Your task to perform on an android device: Clear all items from cart on amazon. Add "razer deathadder" to the cart on amazon Image 0: 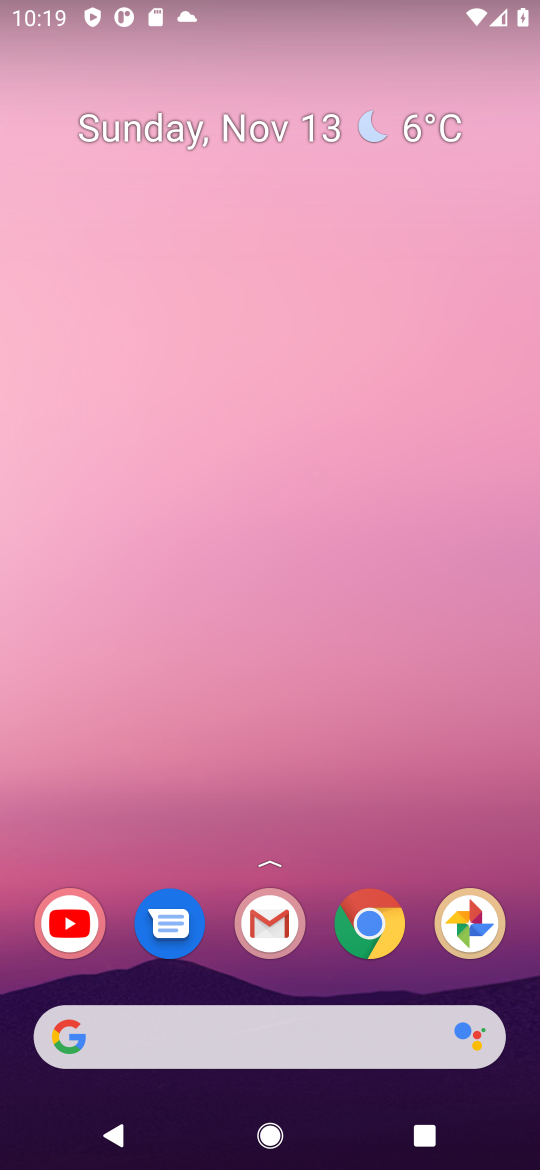
Step 0: click (370, 917)
Your task to perform on an android device: Clear all items from cart on amazon. Add "razer deathadder" to the cart on amazon Image 1: 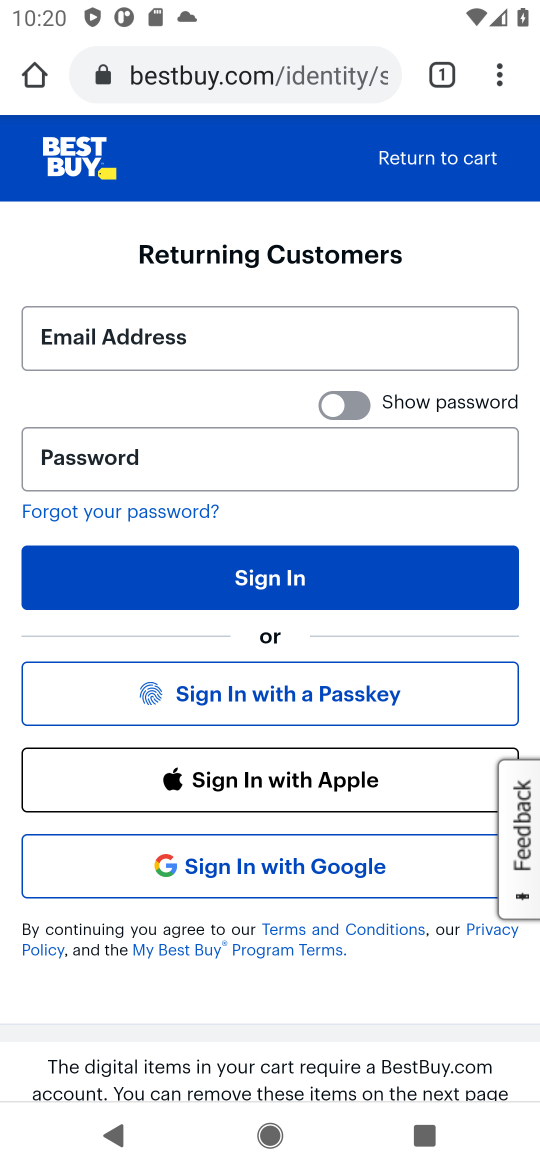
Step 1: click (299, 67)
Your task to perform on an android device: Clear all items from cart on amazon. Add "razer deathadder" to the cart on amazon Image 2: 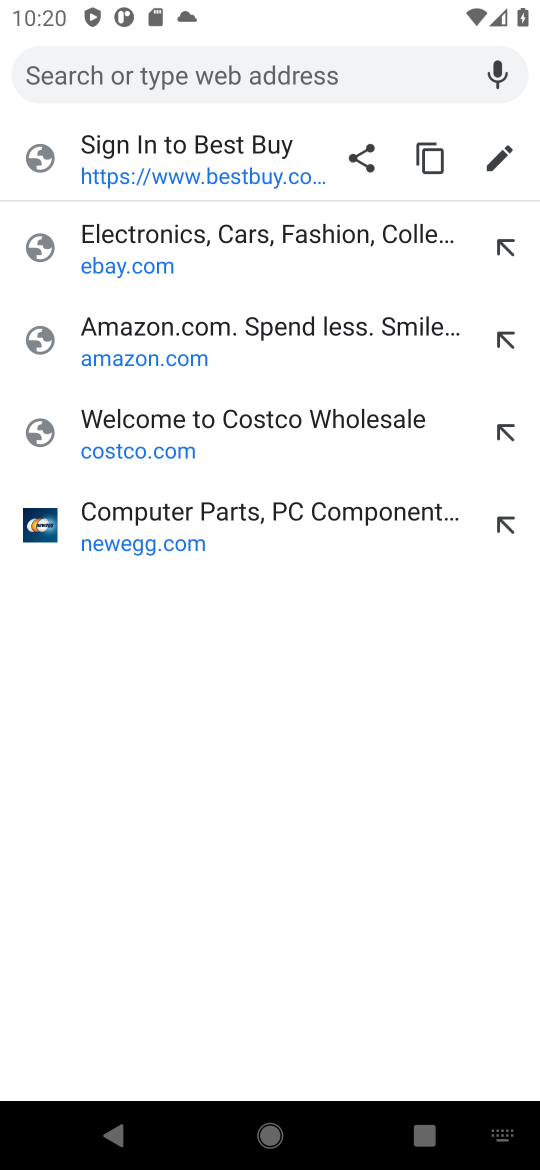
Step 2: click (202, 326)
Your task to perform on an android device: Clear all items from cart on amazon. Add "razer deathadder" to the cart on amazon Image 3: 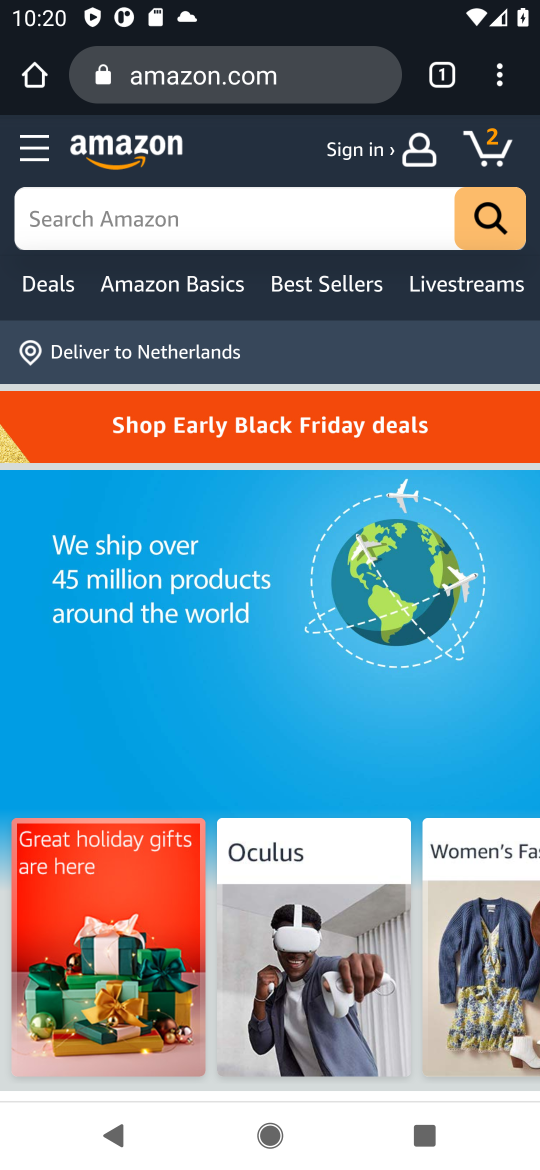
Step 3: click (479, 159)
Your task to perform on an android device: Clear all items from cart on amazon. Add "razer deathadder" to the cart on amazon Image 4: 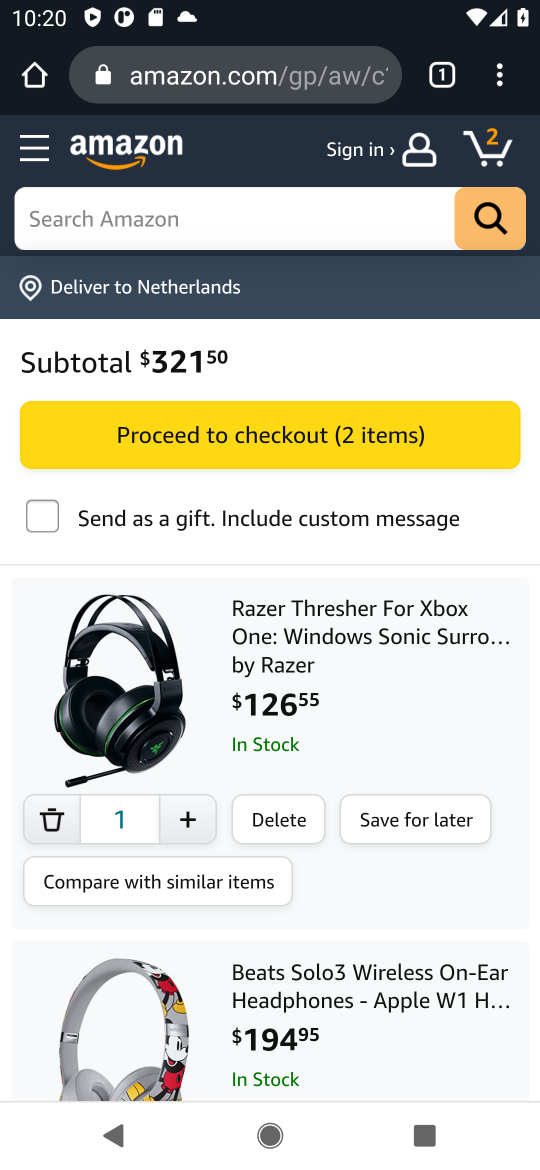
Step 4: click (261, 817)
Your task to perform on an android device: Clear all items from cart on amazon. Add "razer deathadder" to the cart on amazon Image 5: 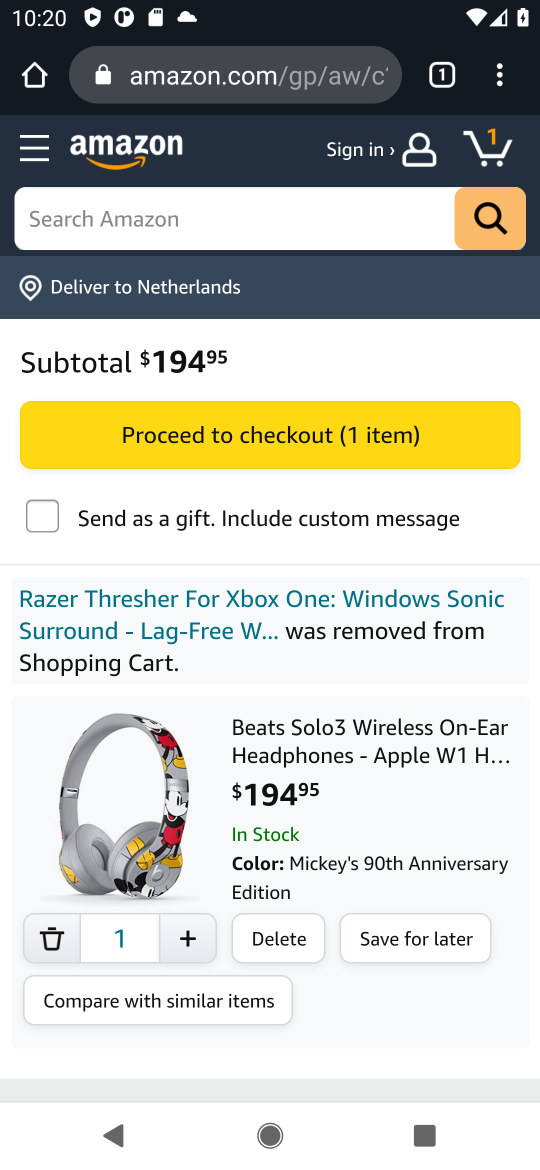
Step 5: click (269, 941)
Your task to perform on an android device: Clear all items from cart on amazon. Add "razer deathadder" to the cart on amazon Image 6: 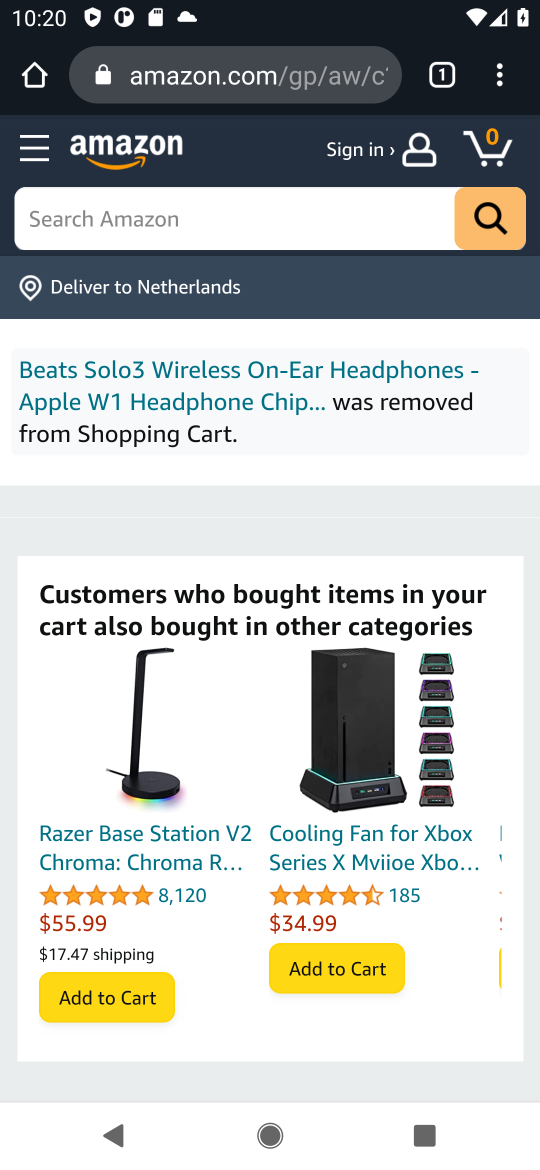
Step 6: click (301, 230)
Your task to perform on an android device: Clear all items from cart on amazon. Add "razer deathadder" to the cart on amazon Image 7: 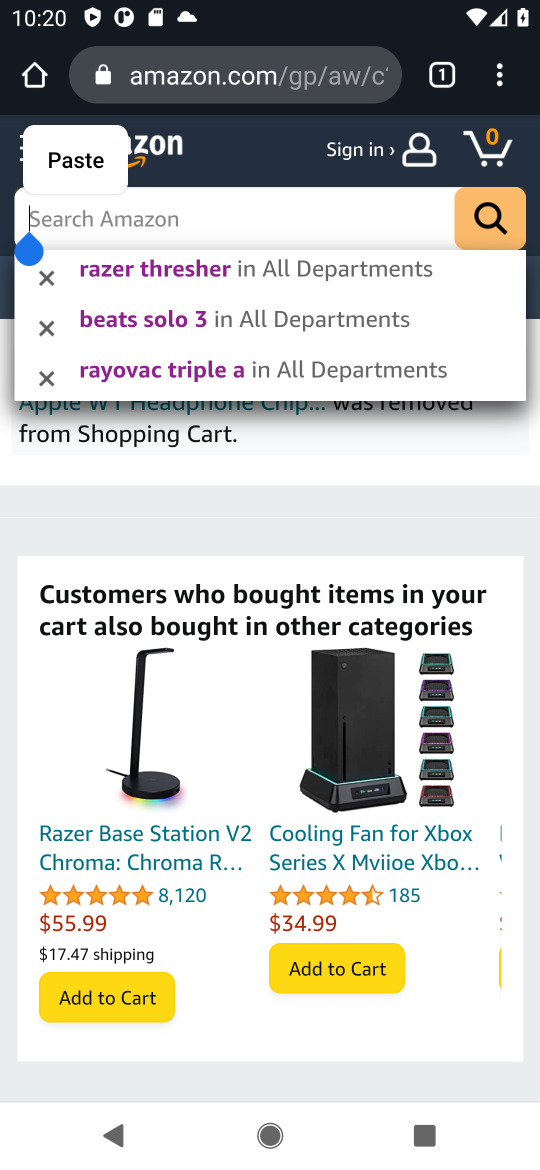
Step 7: type "razer deathadder"
Your task to perform on an android device: Clear all items from cart on amazon. Add "razer deathadder" to the cart on amazon Image 8: 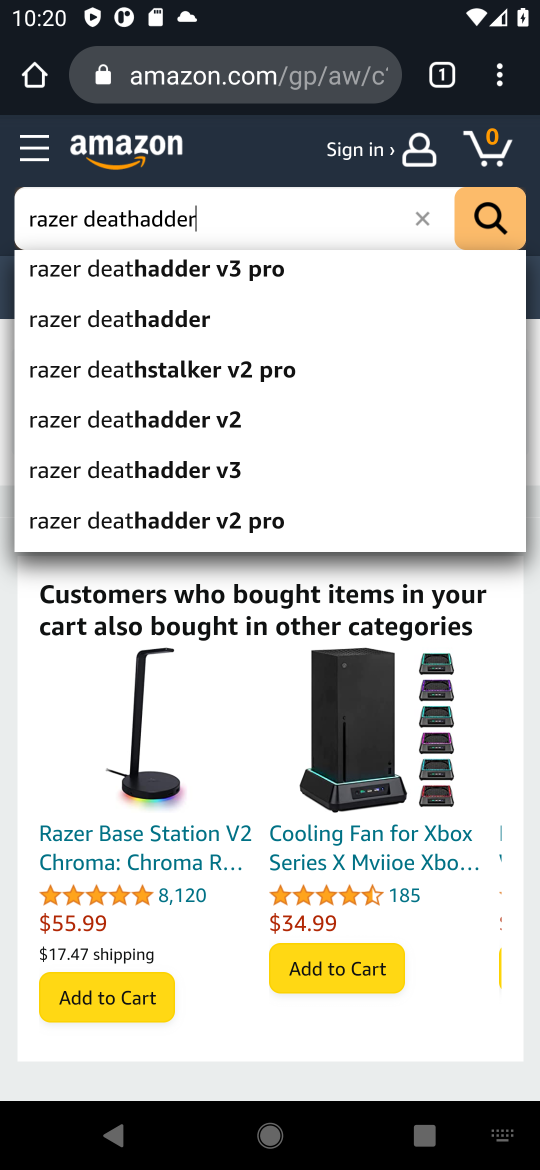
Step 8: press enter
Your task to perform on an android device: Clear all items from cart on amazon. Add "razer deathadder" to the cart on amazon Image 9: 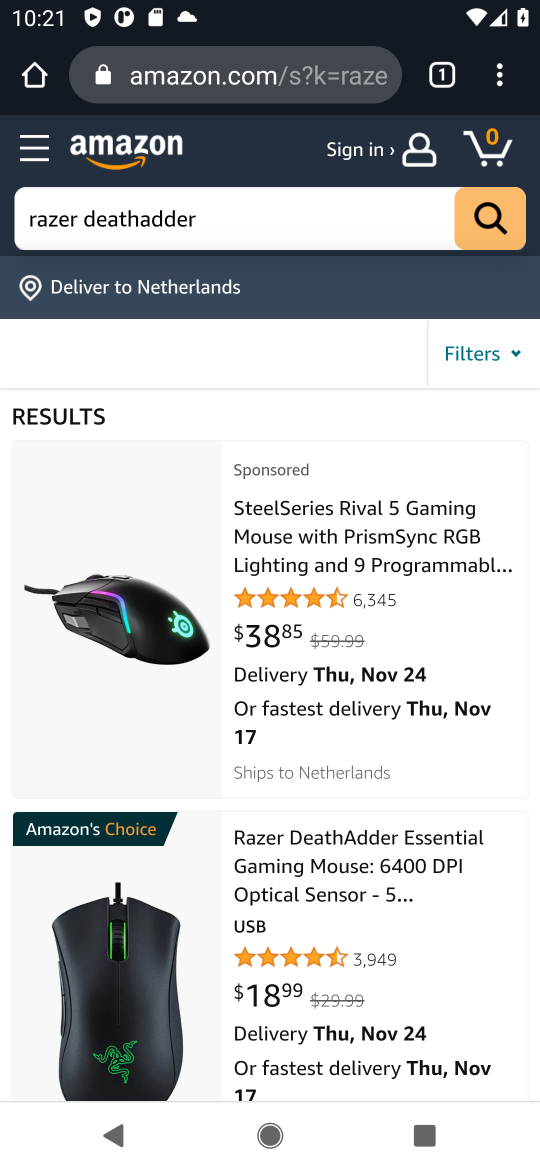
Step 9: click (136, 950)
Your task to perform on an android device: Clear all items from cart on amazon. Add "razer deathadder" to the cart on amazon Image 10: 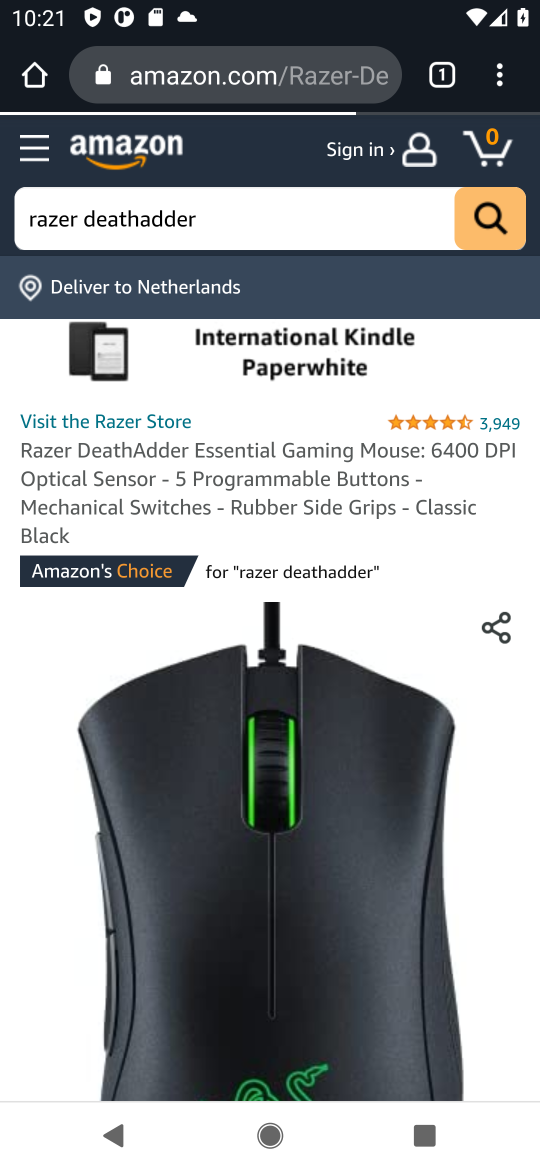
Step 10: drag from (404, 741) to (449, 384)
Your task to perform on an android device: Clear all items from cart on amazon. Add "razer deathadder" to the cart on amazon Image 11: 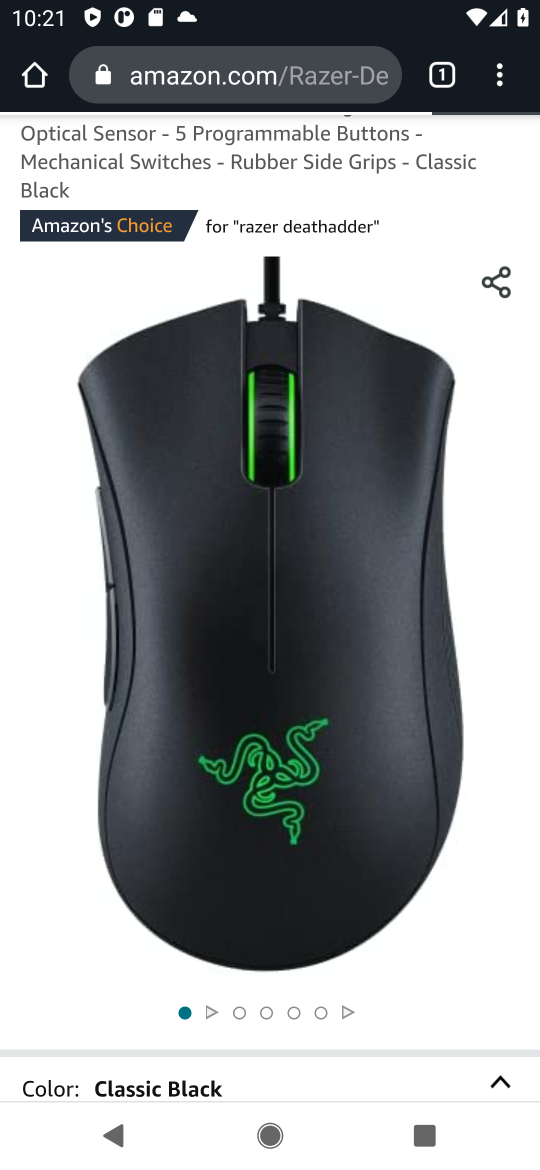
Step 11: drag from (467, 938) to (417, 484)
Your task to perform on an android device: Clear all items from cart on amazon. Add "razer deathadder" to the cart on amazon Image 12: 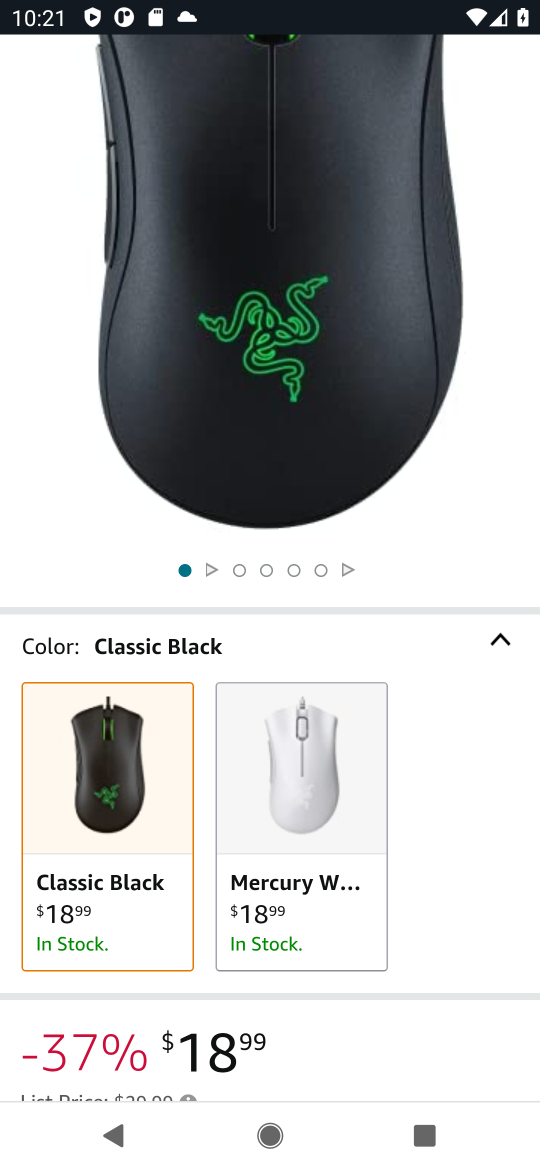
Step 12: drag from (444, 857) to (474, 477)
Your task to perform on an android device: Clear all items from cart on amazon. Add "razer deathadder" to the cart on amazon Image 13: 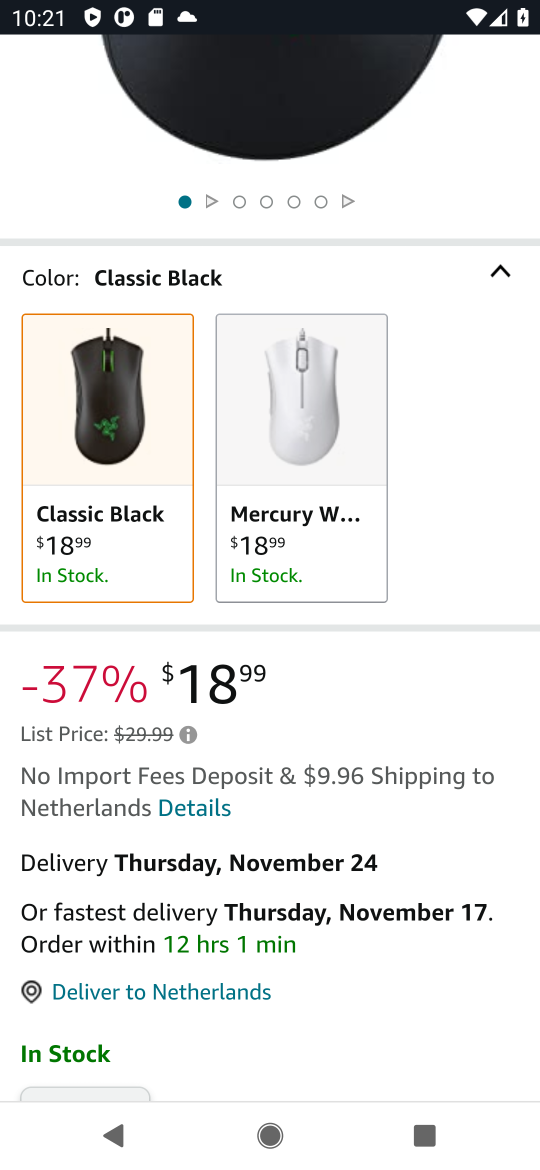
Step 13: drag from (376, 988) to (425, 445)
Your task to perform on an android device: Clear all items from cart on amazon. Add "razer deathadder" to the cart on amazon Image 14: 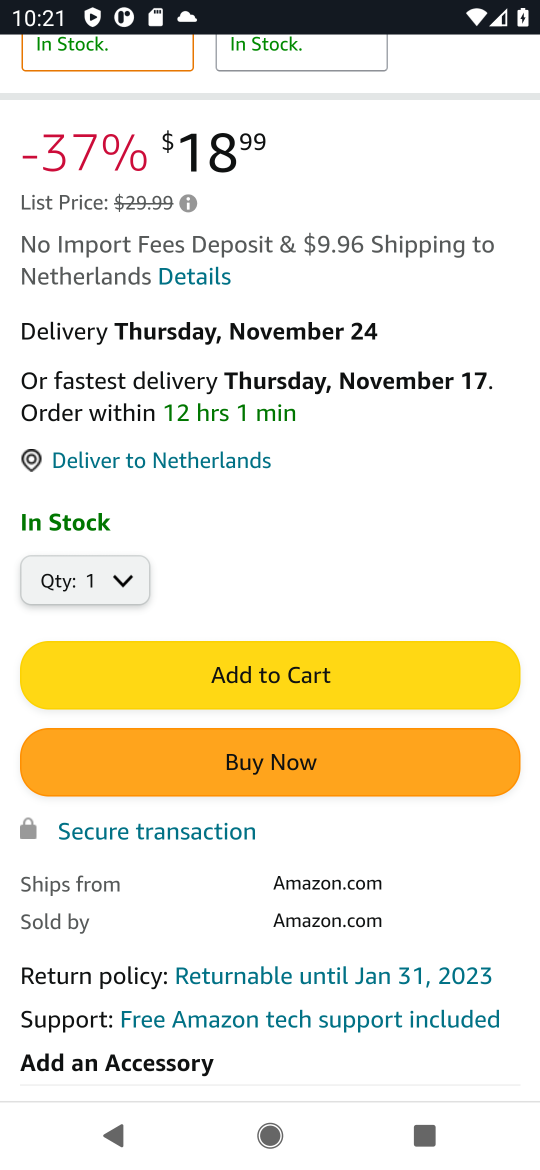
Step 14: click (292, 684)
Your task to perform on an android device: Clear all items from cart on amazon. Add "razer deathadder" to the cart on amazon Image 15: 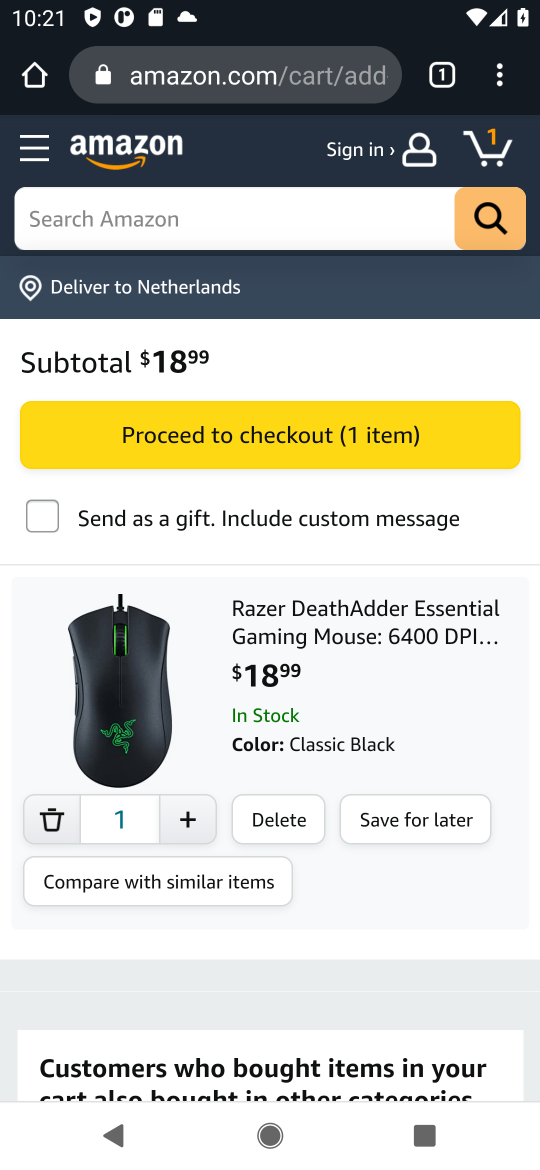
Step 15: task complete